Your task to perform on an android device: When is my next appointment? Image 0: 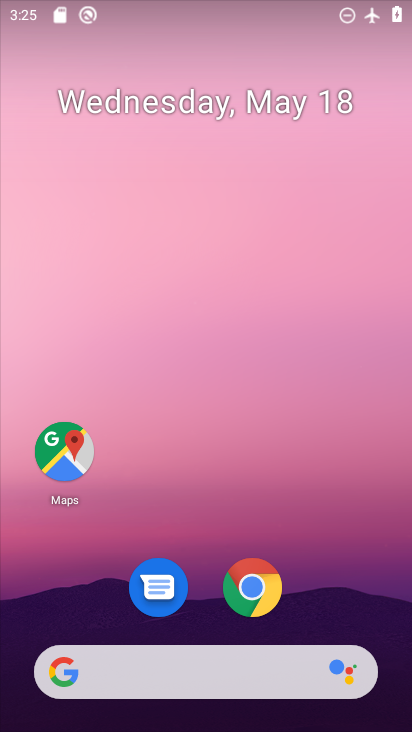
Step 0: drag from (216, 691) to (269, 1)
Your task to perform on an android device: When is my next appointment? Image 1: 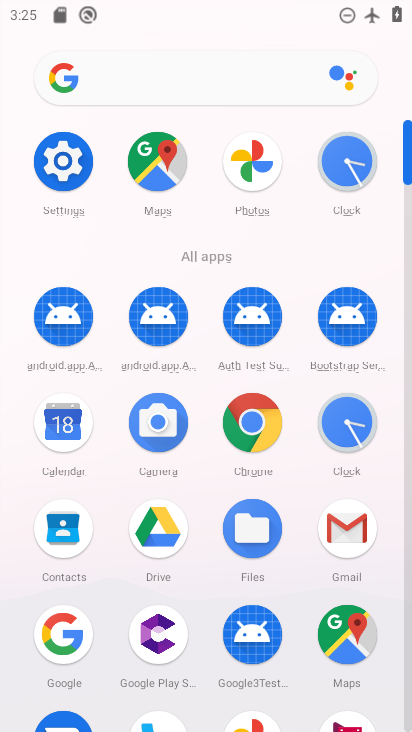
Step 1: click (70, 418)
Your task to perform on an android device: When is my next appointment? Image 2: 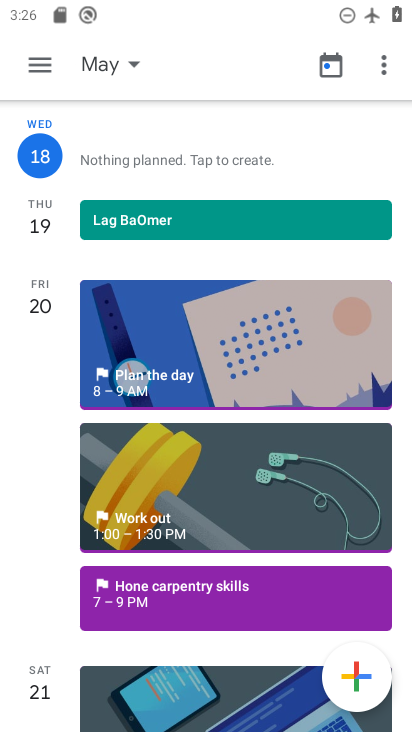
Step 2: click (31, 74)
Your task to perform on an android device: When is my next appointment? Image 3: 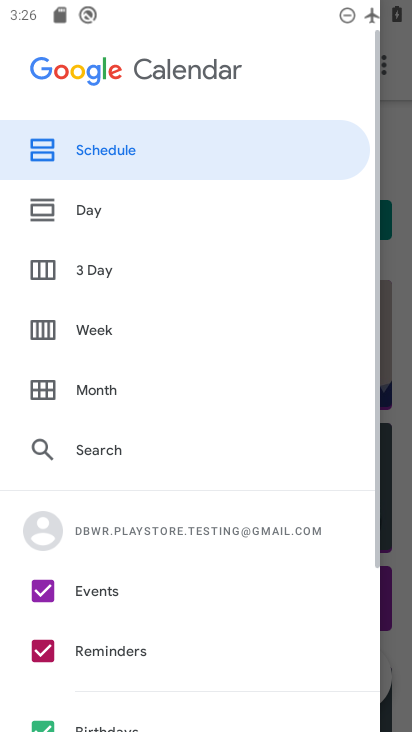
Step 3: click (135, 159)
Your task to perform on an android device: When is my next appointment? Image 4: 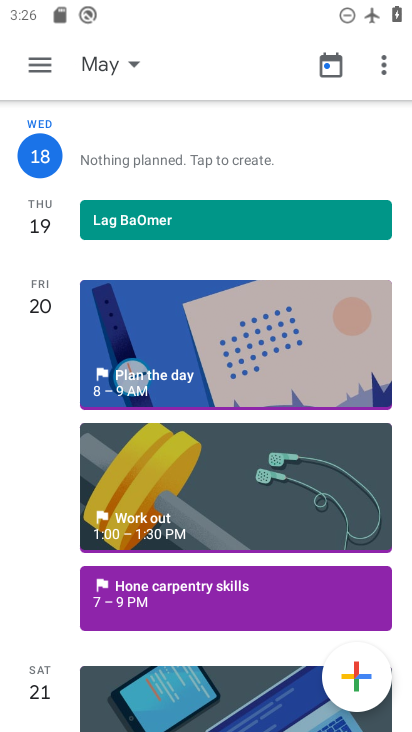
Step 4: task complete